Your task to perform on an android device: Open ESPN.com Image 0: 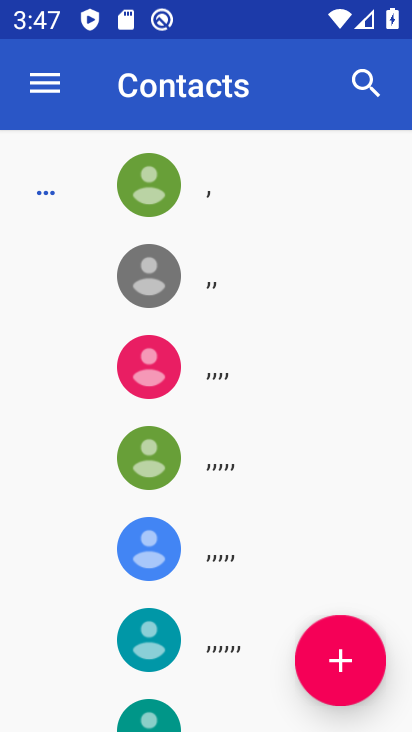
Step 0: press home button
Your task to perform on an android device: Open ESPN.com Image 1: 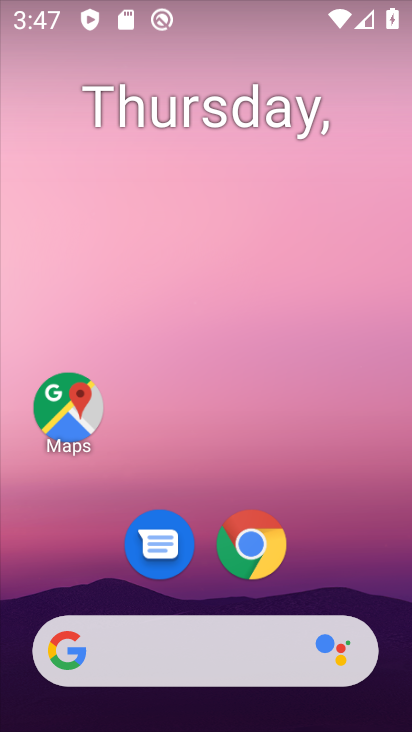
Step 1: click (261, 549)
Your task to perform on an android device: Open ESPN.com Image 2: 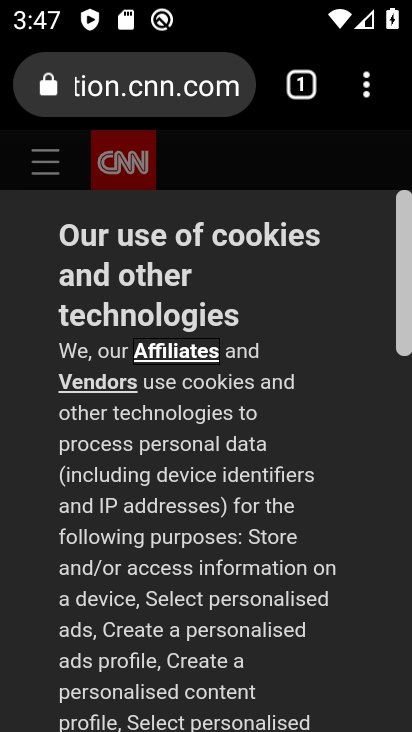
Step 2: click (304, 79)
Your task to perform on an android device: Open ESPN.com Image 3: 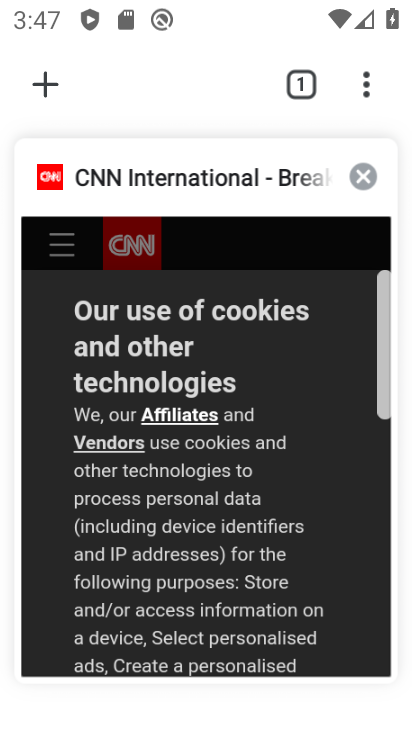
Step 3: click (37, 91)
Your task to perform on an android device: Open ESPN.com Image 4: 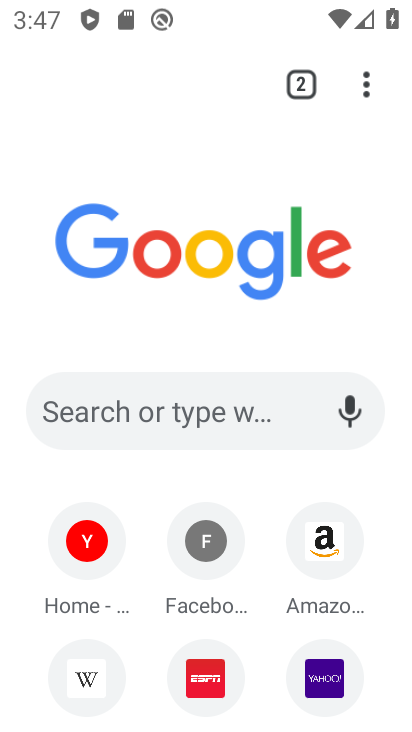
Step 4: click (205, 419)
Your task to perform on an android device: Open ESPN.com Image 5: 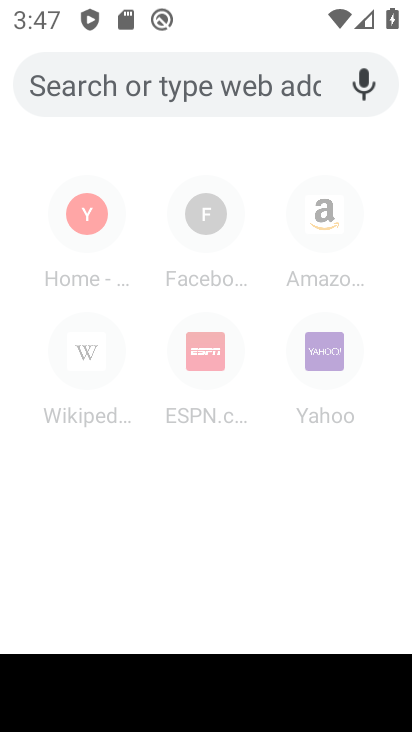
Step 5: click (195, 363)
Your task to perform on an android device: Open ESPN.com Image 6: 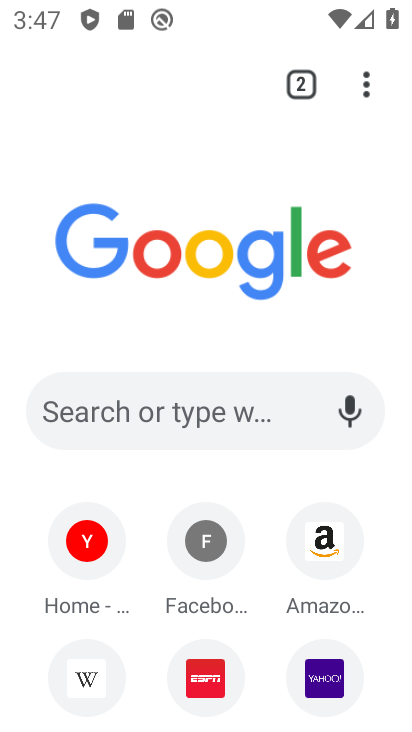
Step 6: click (199, 673)
Your task to perform on an android device: Open ESPN.com Image 7: 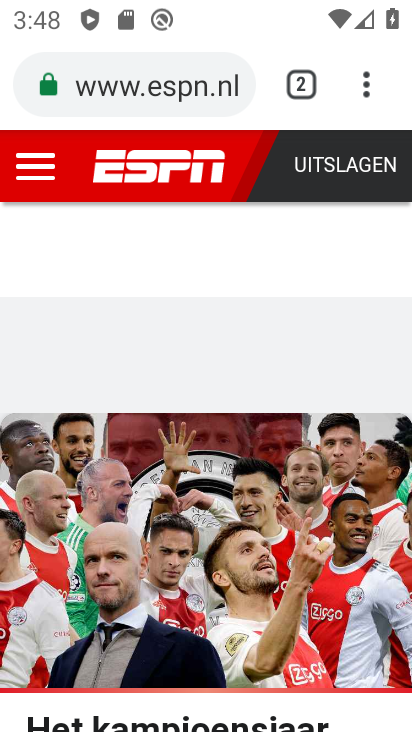
Step 7: task complete